Your task to perform on an android device: Search for Mexican restaurants on Maps Image 0: 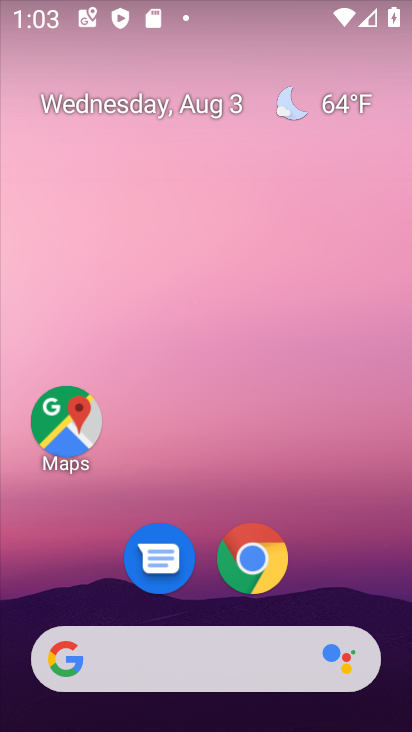
Step 0: click (77, 435)
Your task to perform on an android device: Search for Mexican restaurants on Maps Image 1: 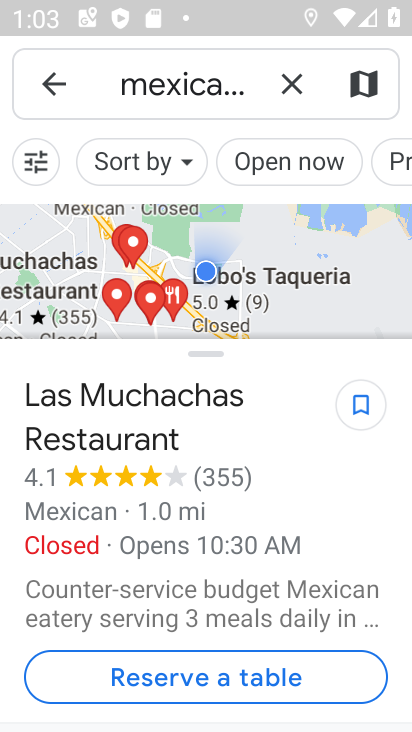
Step 1: click (294, 73)
Your task to perform on an android device: Search for Mexican restaurants on Maps Image 2: 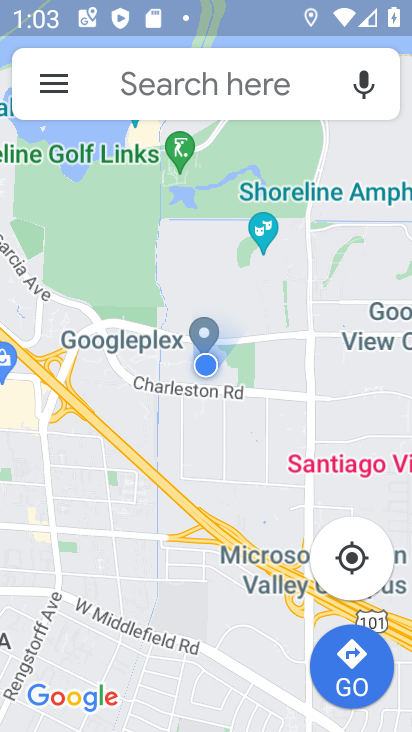
Step 2: click (271, 96)
Your task to perform on an android device: Search for Mexican restaurants on Maps Image 3: 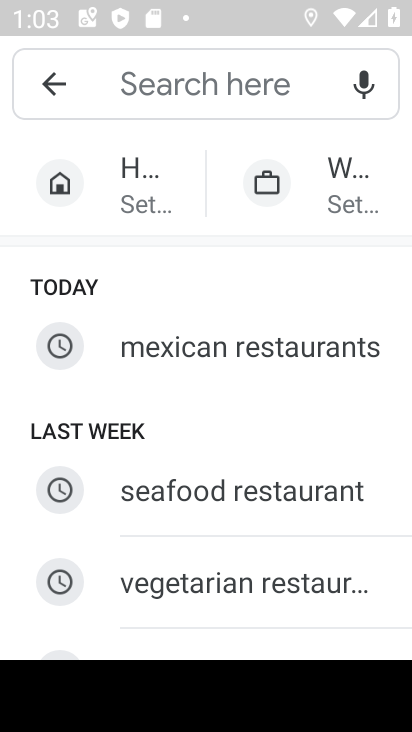
Step 3: click (307, 349)
Your task to perform on an android device: Search for Mexican restaurants on Maps Image 4: 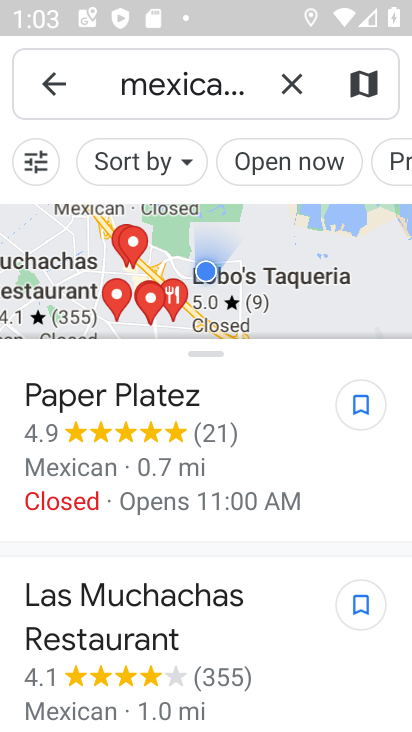
Step 4: click (307, 349)
Your task to perform on an android device: Search for Mexican restaurants on Maps Image 5: 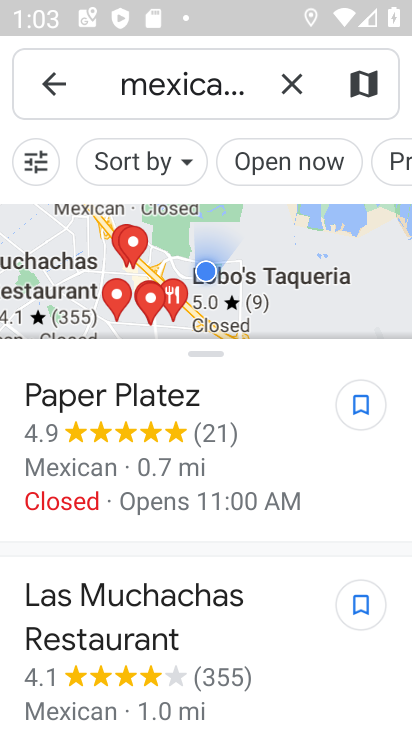
Step 5: task complete